Your task to perform on an android device: Go to Yahoo.com Image 0: 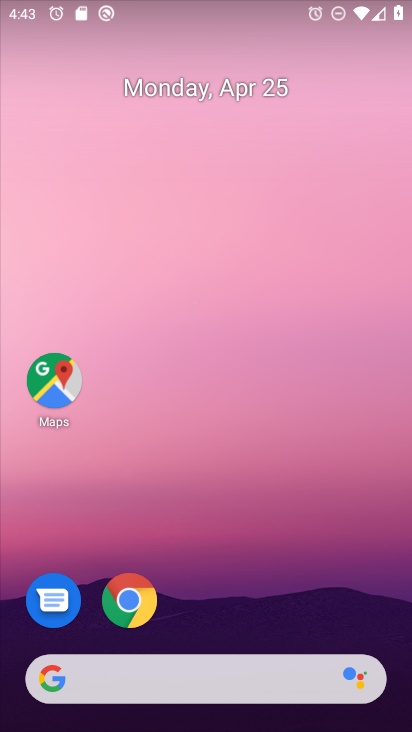
Step 0: drag from (228, 546) to (147, 26)
Your task to perform on an android device: Go to Yahoo.com Image 1: 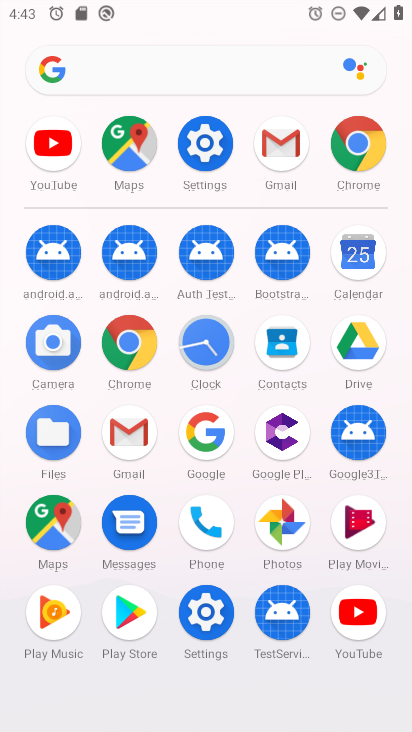
Step 1: click (121, 344)
Your task to perform on an android device: Go to Yahoo.com Image 2: 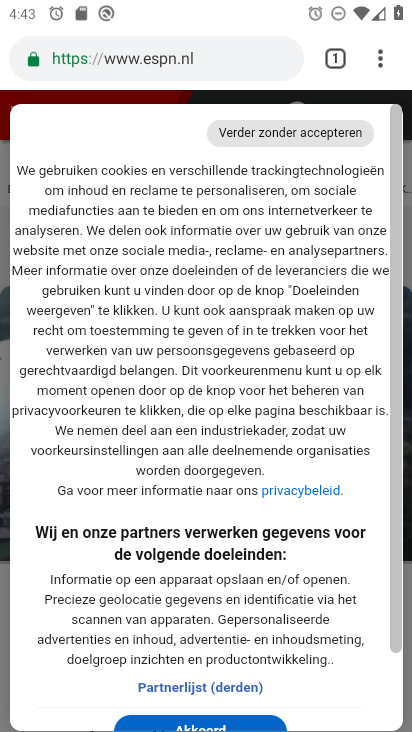
Step 2: click (201, 59)
Your task to perform on an android device: Go to Yahoo.com Image 3: 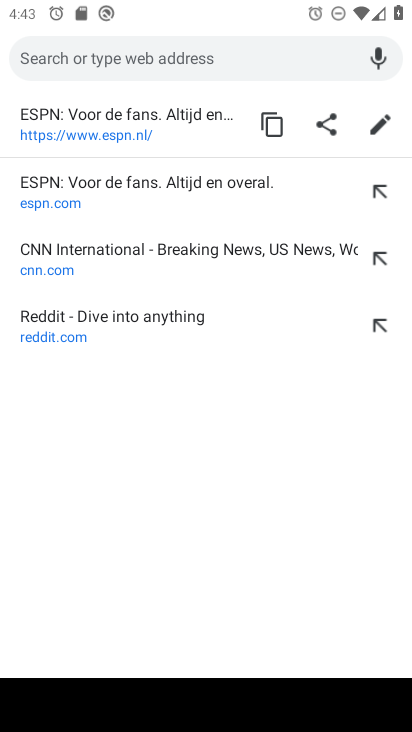
Step 3: type "Yahoo.com"
Your task to perform on an android device: Go to Yahoo.com Image 4: 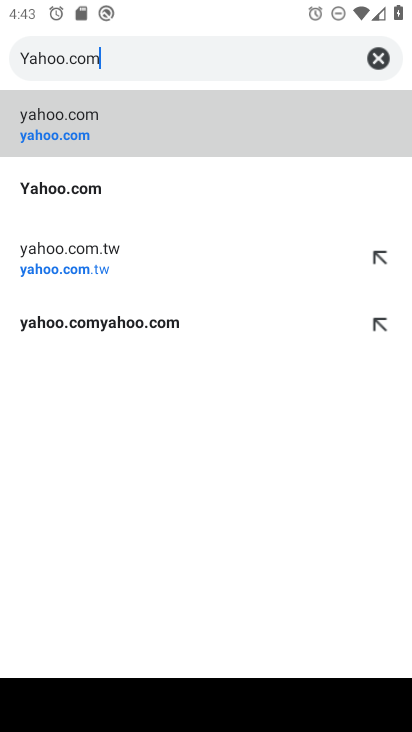
Step 4: type ""
Your task to perform on an android device: Go to Yahoo.com Image 5: 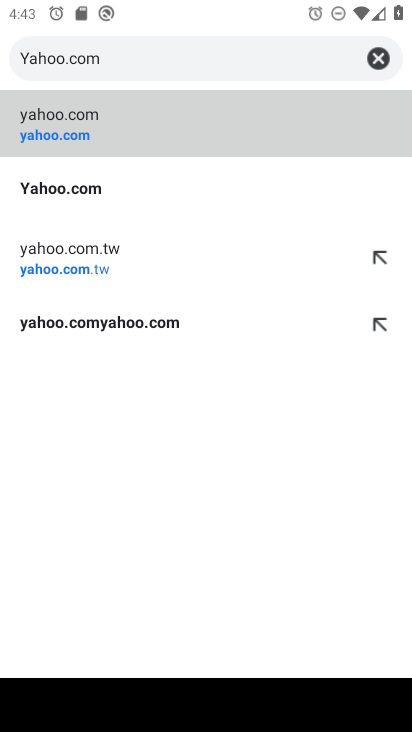
Step 5: click (128, 148)
Your task to perform on an android device: Go to Yahoo.com Image 6: 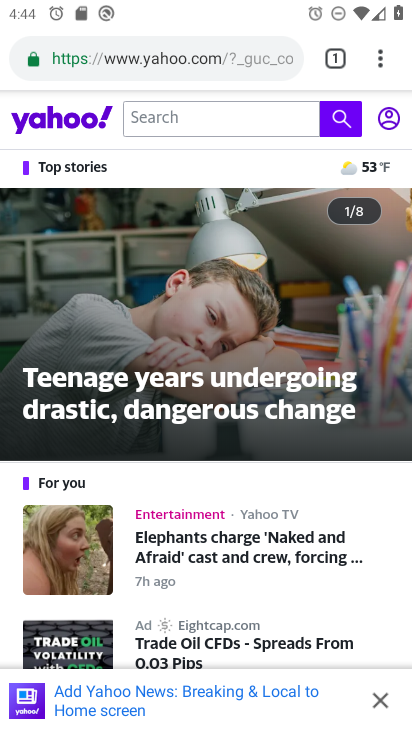
Step 6: task complete